Your task to perform on an android device: What's the weather like in Paris? Image 0: 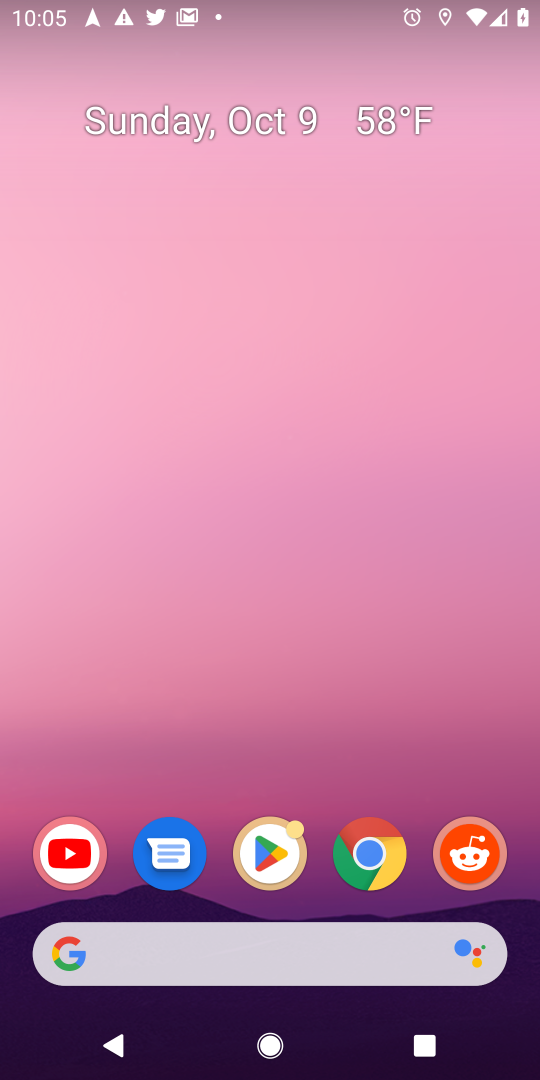
Step 0: click (386, 848)
Your task to perform on an android device: What's the weather like in Paris? Image 1: 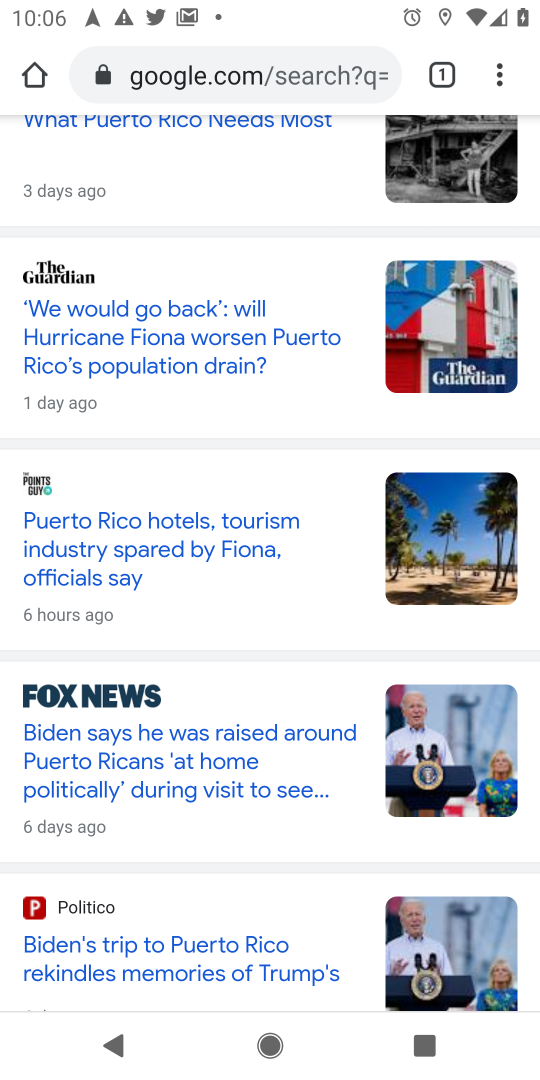
Step 1: click (275, 87)
Your task to perform on an android device: What's the weather like in Paris? Image 2: 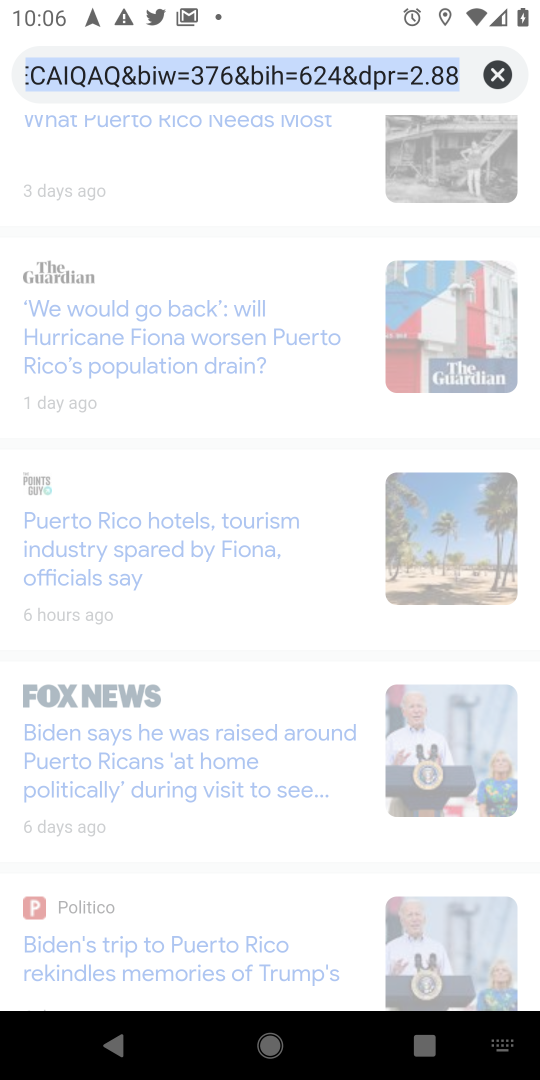
Step 2: type "weather in paris"
Your task to perform on an android device: What's the weather like in Paris? Image 3: 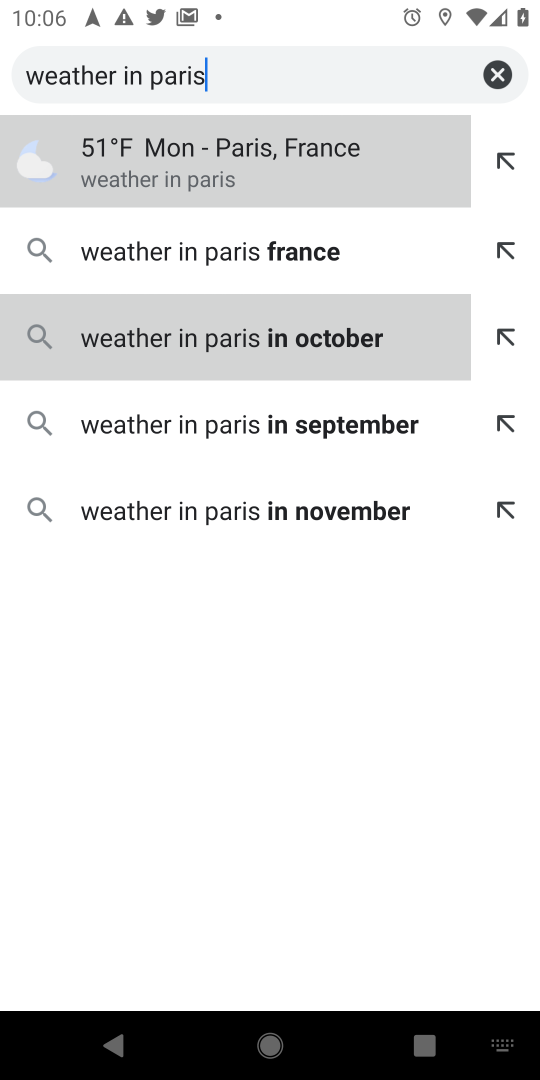
Step 3: click (239, 162)
Your task to perform on an android device: What's the weather like in Paris? Image 4: 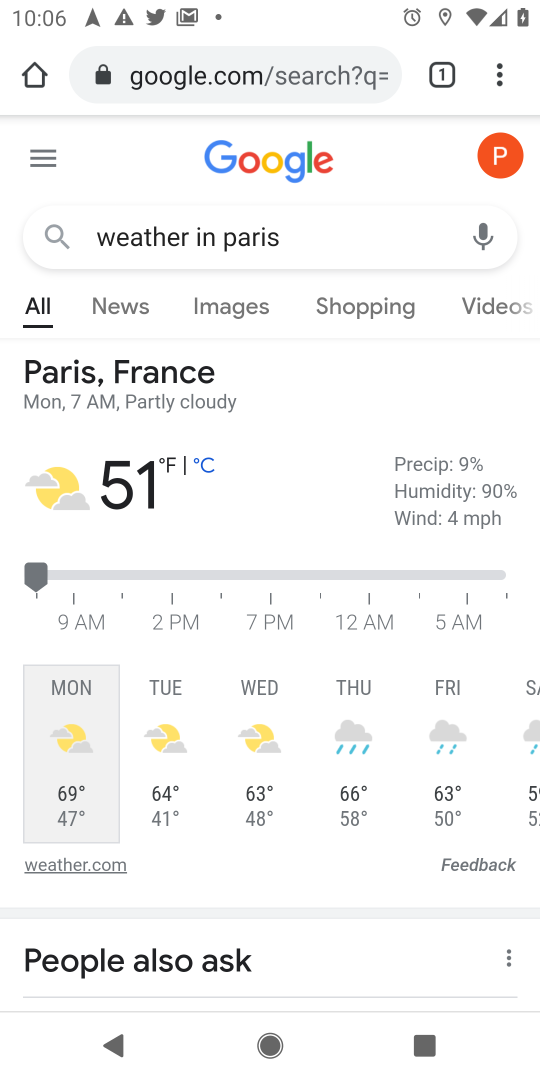
Step 4: task complete